Your task to perform on an android device: change alarm snooze length Image 0: 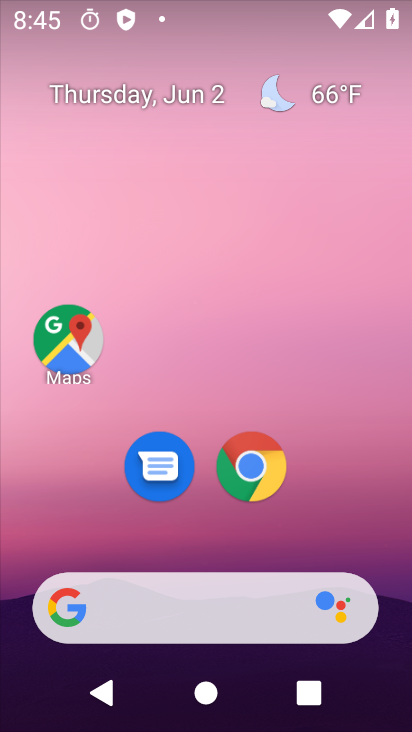
Step 0: press home button
Your task to perform on an android device: change alarm snooze length Image 1: 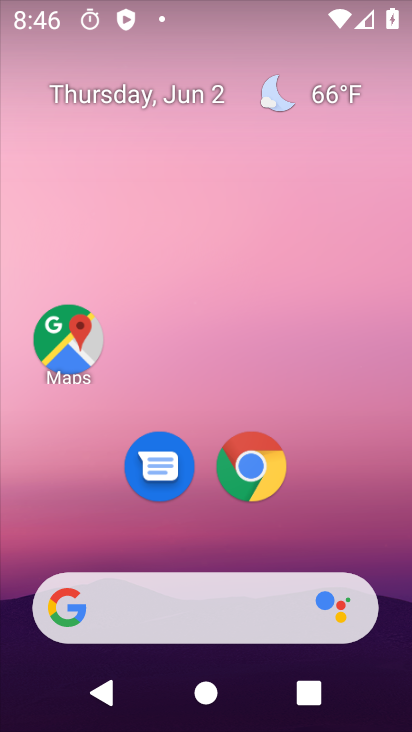
Step 1: drag from (41, 572) to (227, 224)
Your task to perform on an android device: change alarm snooze length Image 2: 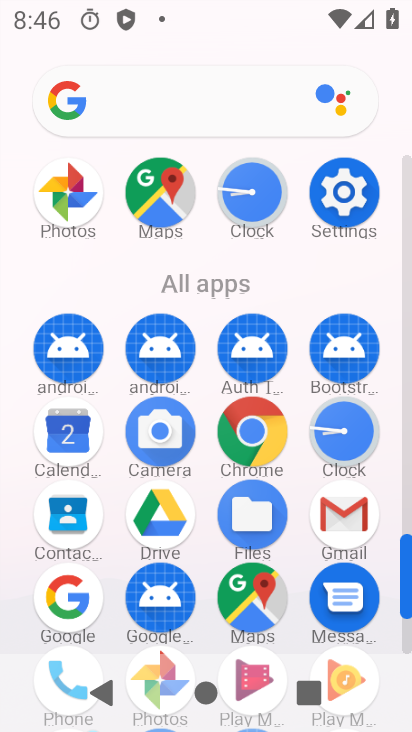
Step 2: click (274, 215)
Your task to perform on an android device: change alarm snooze length Image 3: 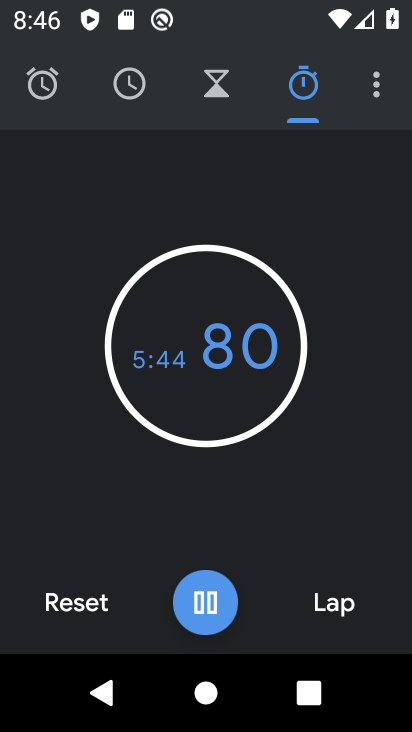
Step 3: click (383, 81)
Your task to perform on an android device: change alarm snooze length Image 4: 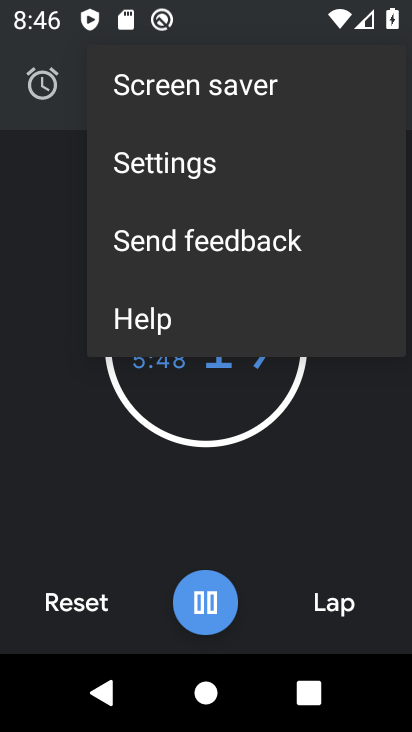
Step 4: click (219, 171)
Your task to perform on an android device: change alarm snooze length Image 5: 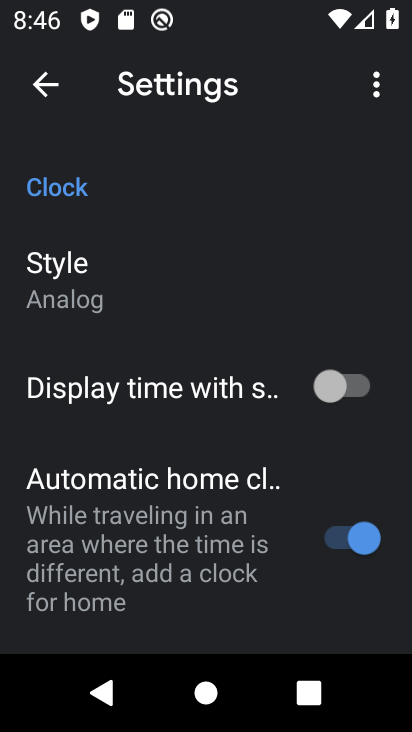
Step 5: drag from (8, 458) to (304, 140)
Your task to perform on an android device: change alarm snooze length Image 6: 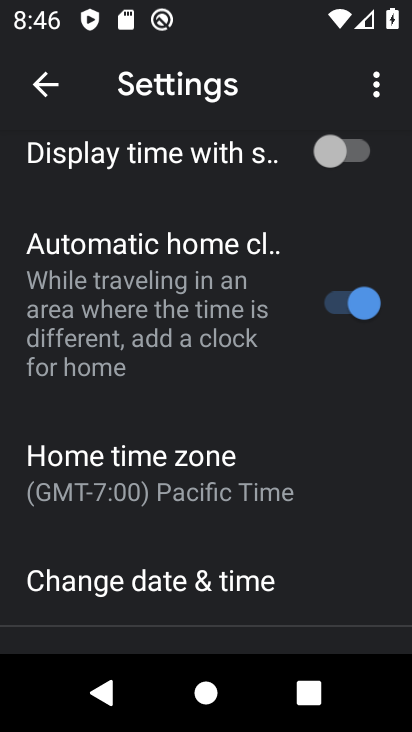
Step 6: drag from (36, 446) to (233, 150)
Your task to perform on an android device: change alarm snooze length Image 7: 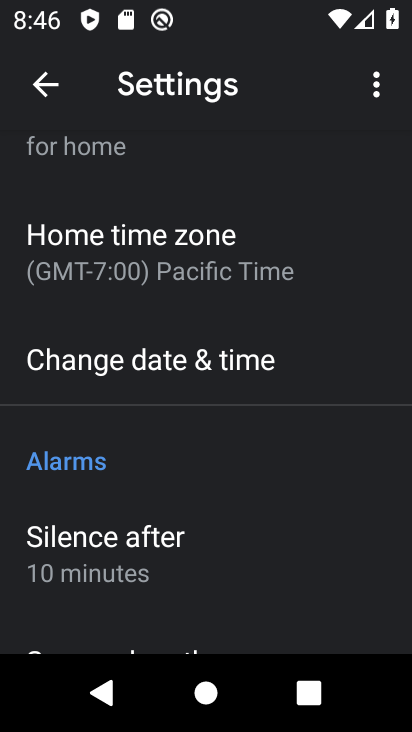
Step 7: drag from (22, 566) to (251, 267)
Your task to perform on an android device: change alarm snooze length Image 8: 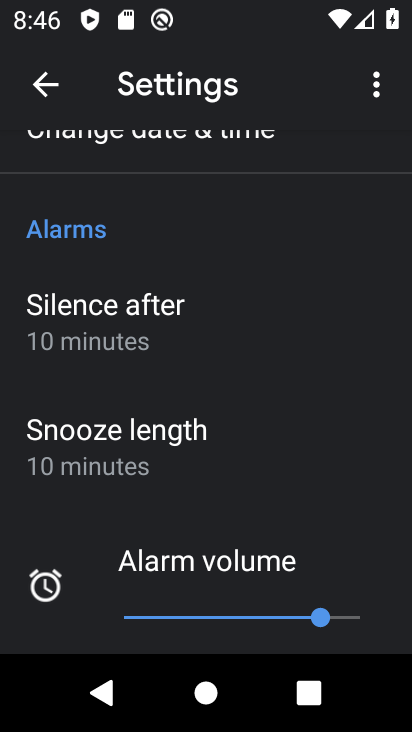
Step 8: click (122, 432)
Your task to perform on an android device: change alarm snooze length Image 9: 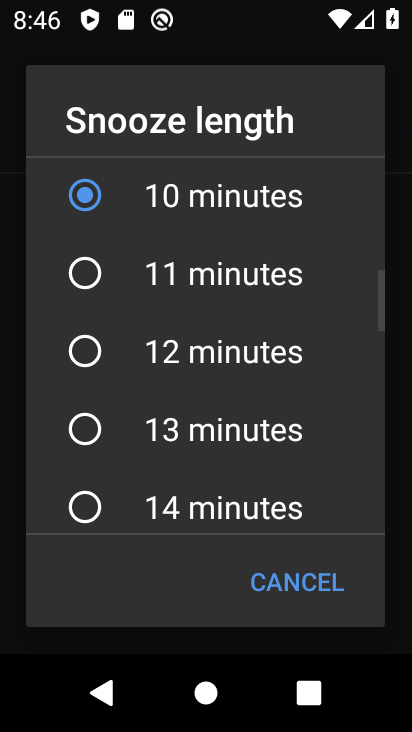
Step 9: click (77, 279)
Your task to perform on an android device: change alarm snooze length Image 10: 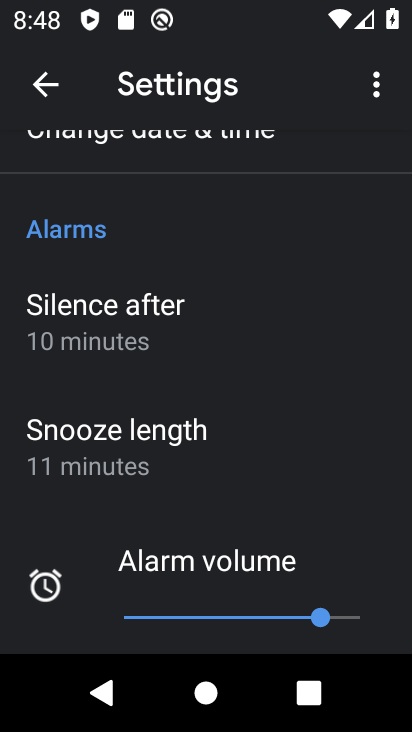
Step 10: task complete